Your task to perform on an android device: Empty the shopping cart on walmart.com. Add "energizer triple a" to the cart on walmart.com, then select checkout. Image 0: 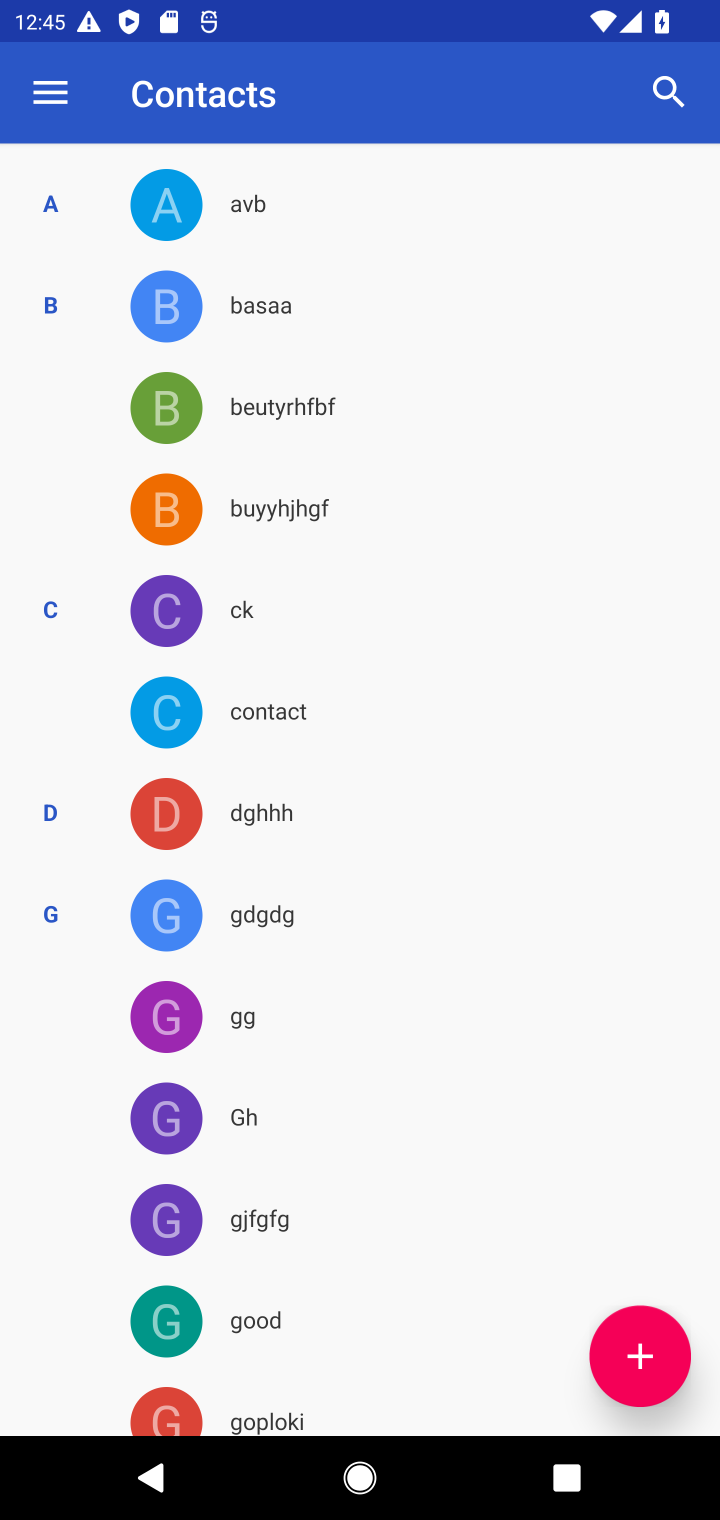
Step 0: press home button
Your task to perform on an android device: Empty the shopping cart on walmart.com. Add "energizer triple a" to the cart on walmart.com, then select checkout. Image 1: 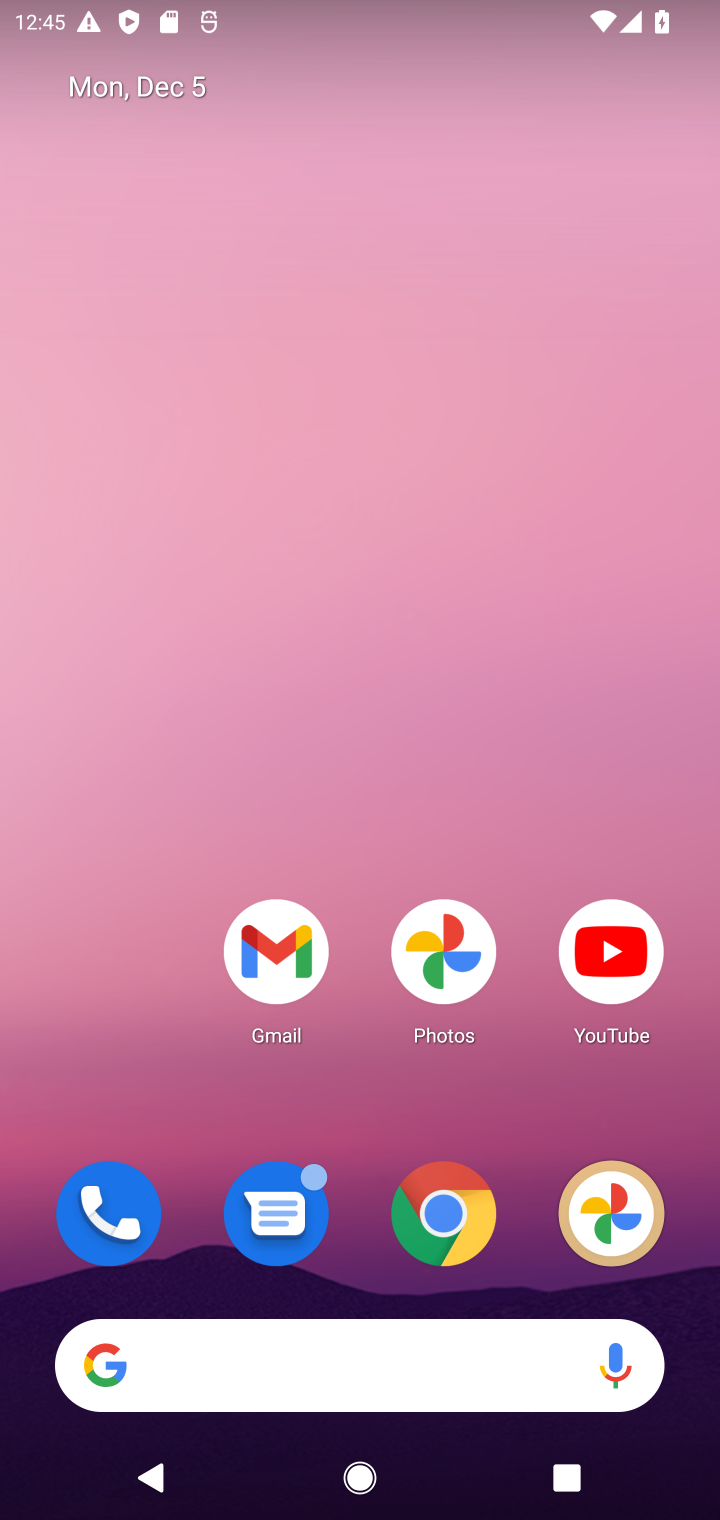
Step 1: click (441, 1222)
Your task to perform on an android device: Empty the shopping cart on walmart.com. Add "energizer triple a" to the cart on walmart.com, then select checkout. Image 2: 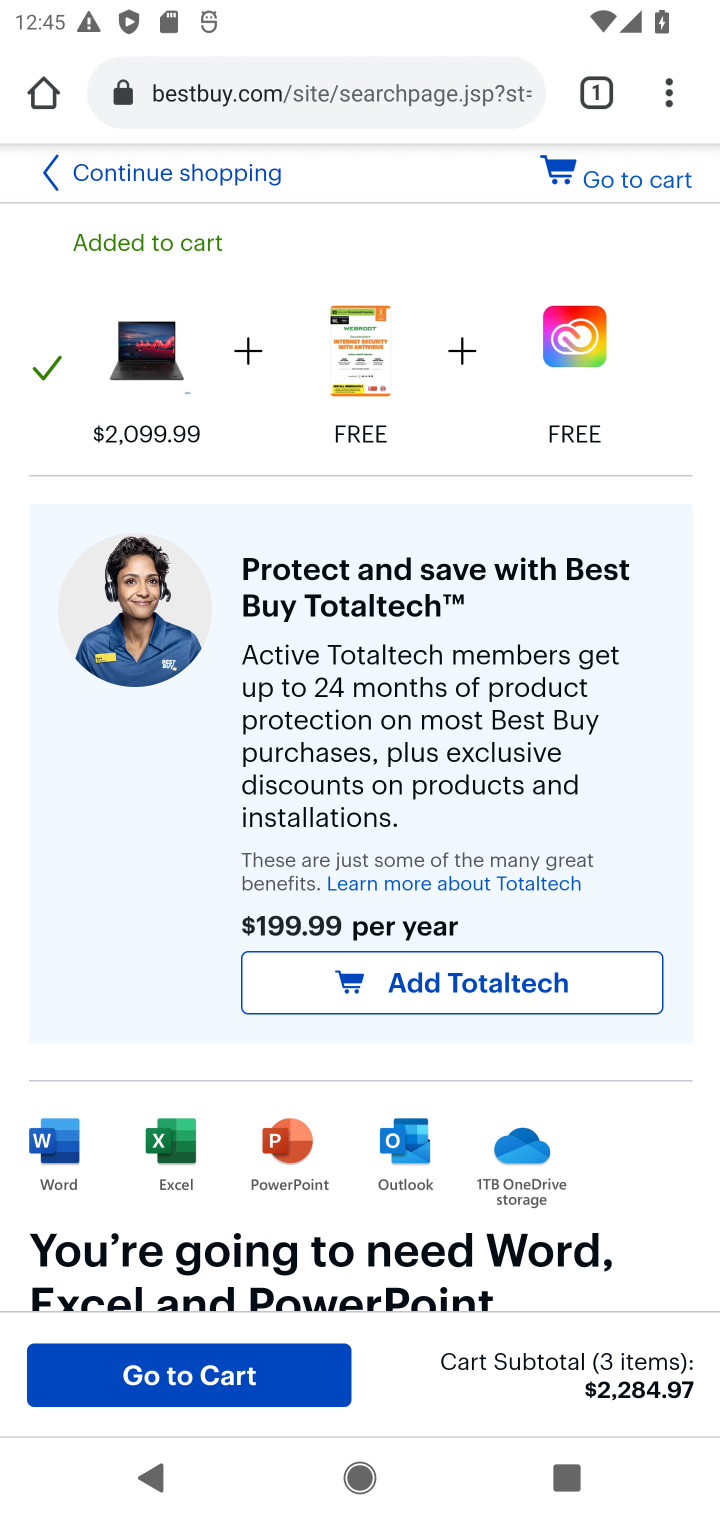
Step 2: click (269, 95)
Your task to perform on an android device: Empty the shopping cart on walmart.com. Add "energizer triple a" to the cart on walmart.com, then select checkout. Image 3: 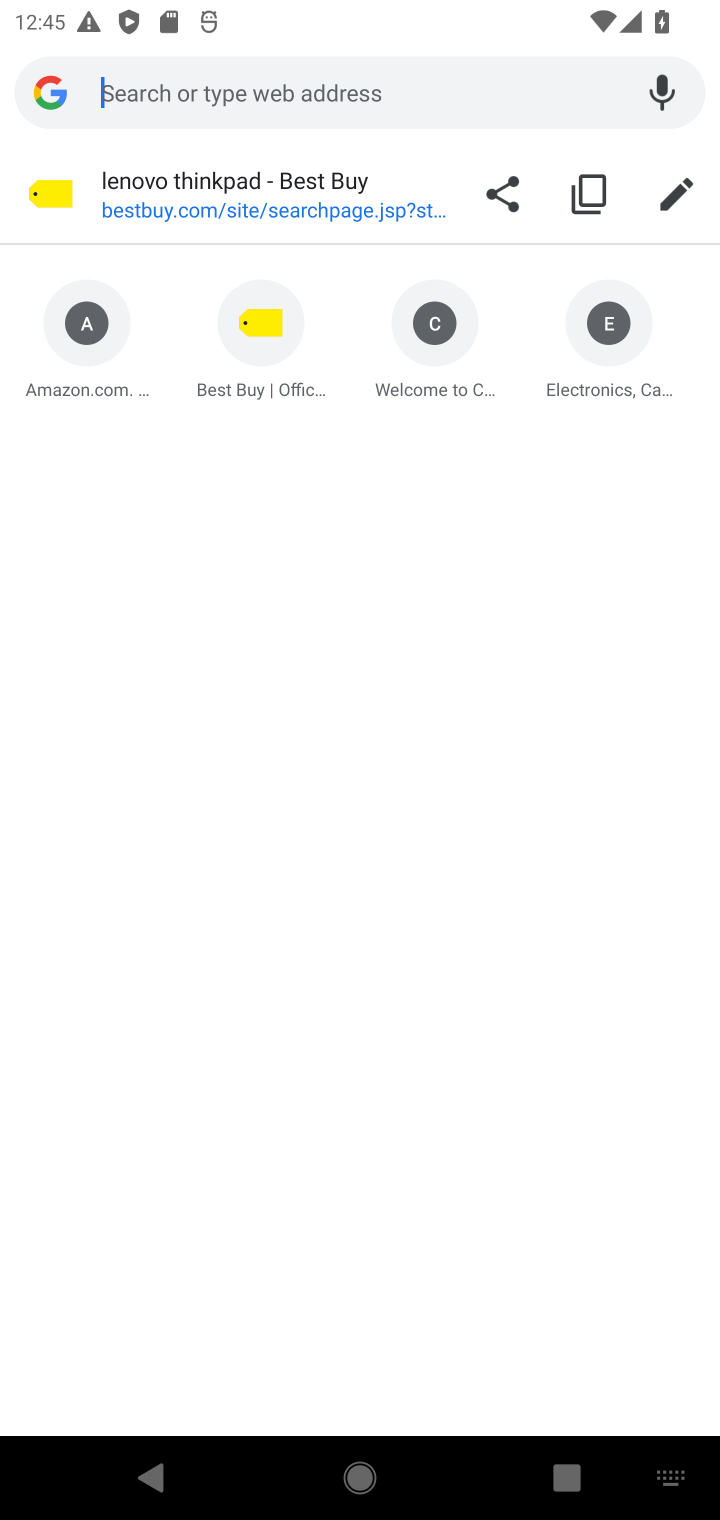
Step 3: type "walmart.com"
Your task to perform on an android device: Empty the shopping cart on walmart.com. Add "energizer triple a" to the cart on walmart.com, then select checkout. Image 4: 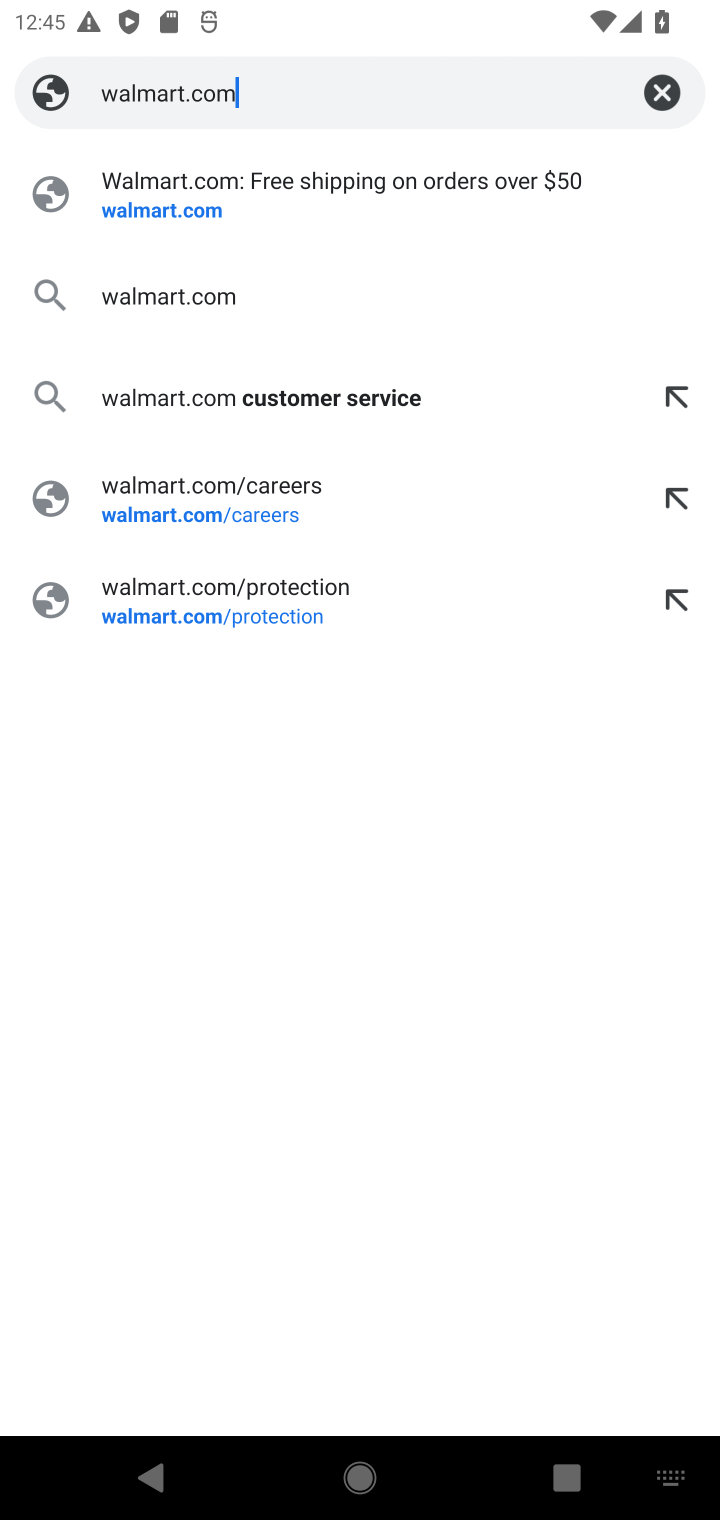
Step 4: click (147, 186)
Your task to perform on an android device: Empty the shopping cart on walmart.com. Add "energizer triple a" to the cart on walmart.com, then select checkout. Image 5: 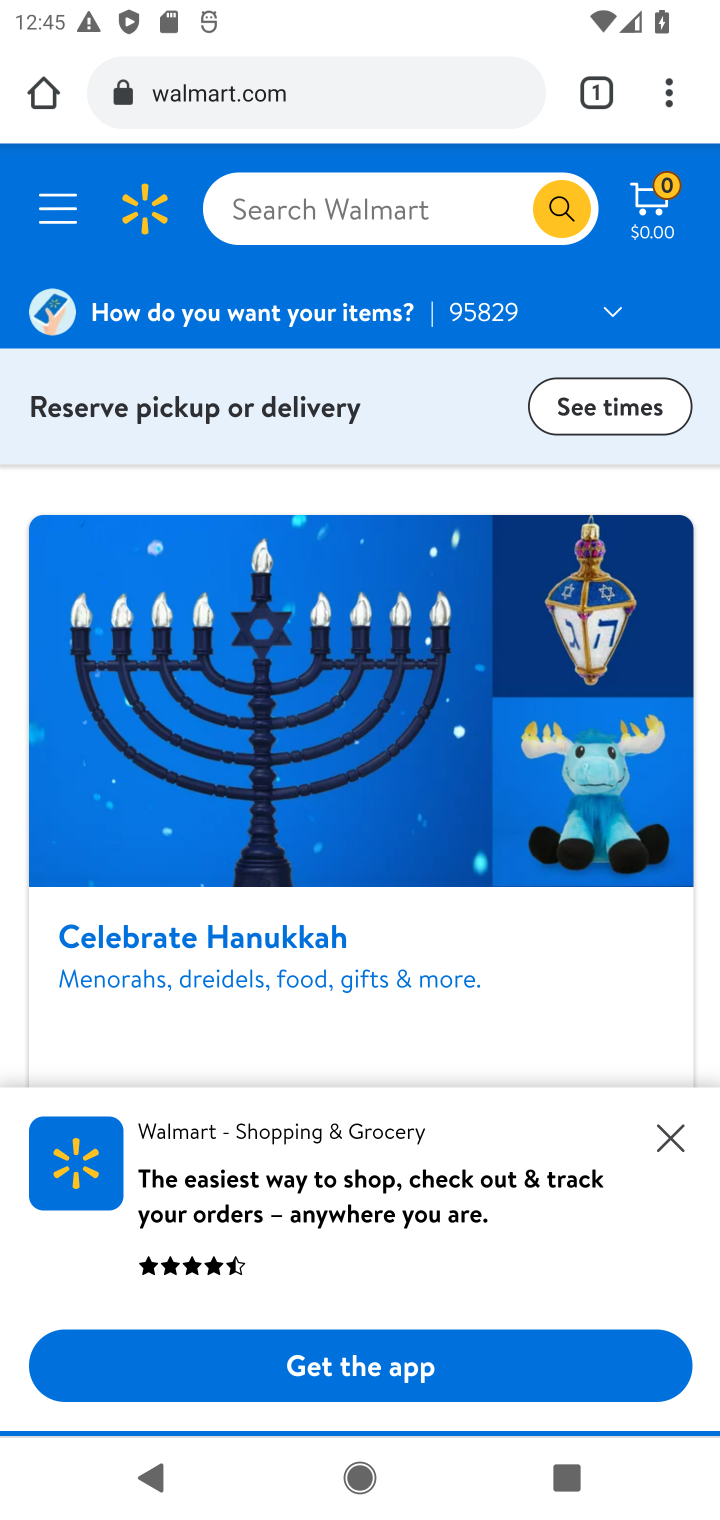
Step 5: click (648, 212)
Your task to perform on an android device: Empty the shopping cart on walmart.com. Add "energizer triple a" to the cart on walmart.com, then select checkout. Image 6: 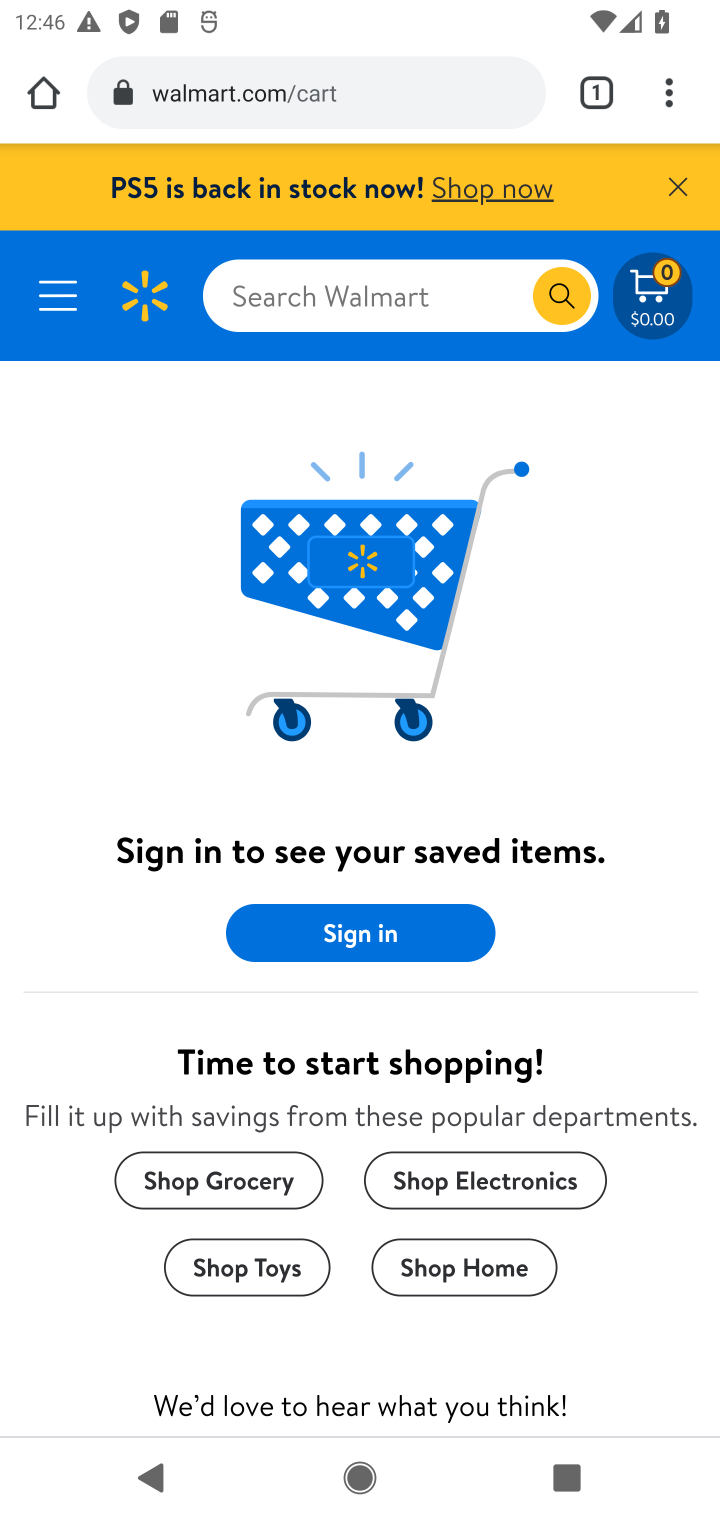
Step 6: click (304, 290)
Your task to perform on an android device: Empty the shopping cart on walmart.com. Add "energizer triple a" to the cart on walmart.com, then select checkout. Image 7: 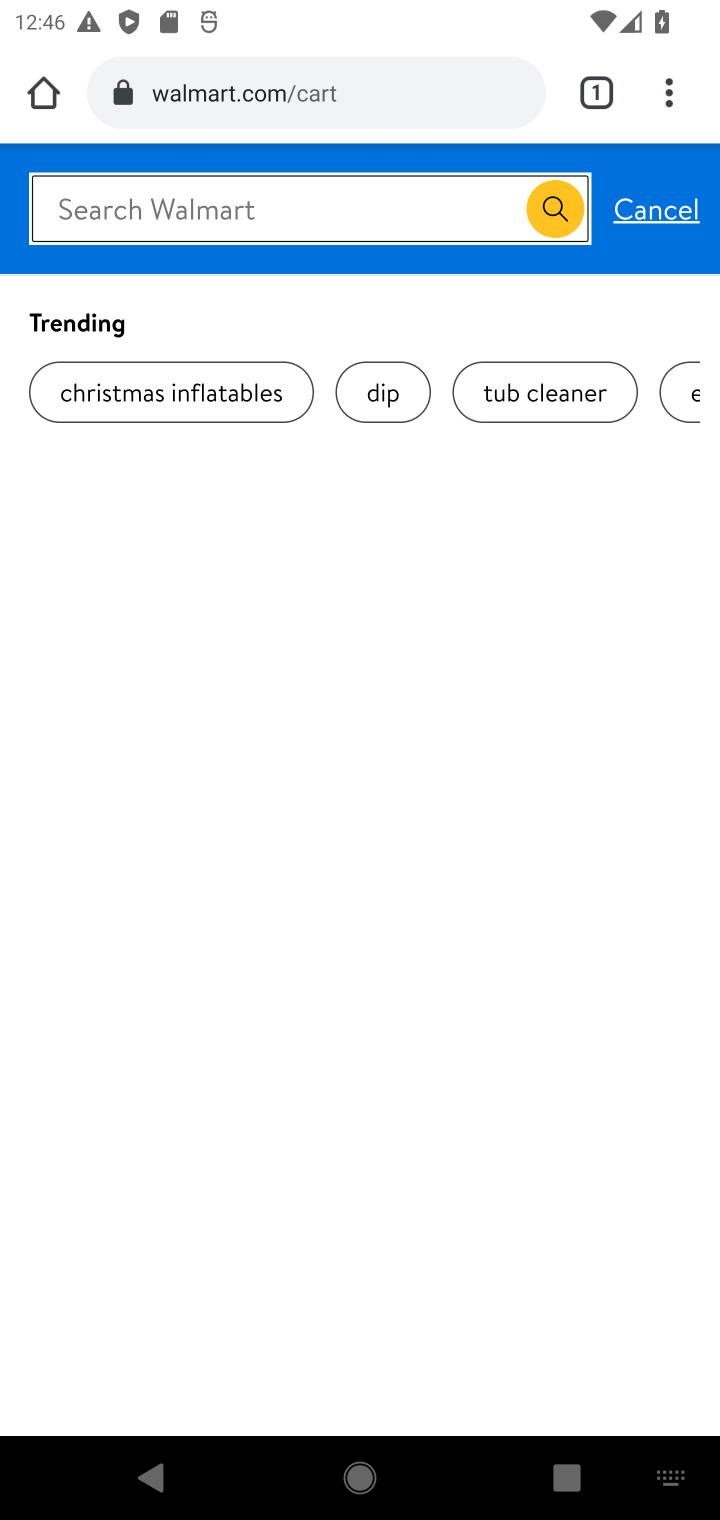
Step 7: type "energizer triple a"
Your task to perform on an android device: Empty the shopping cart on walmart.com. Add "energizer triple a" to the cart on walmart.com, then select checkout. Image 8: 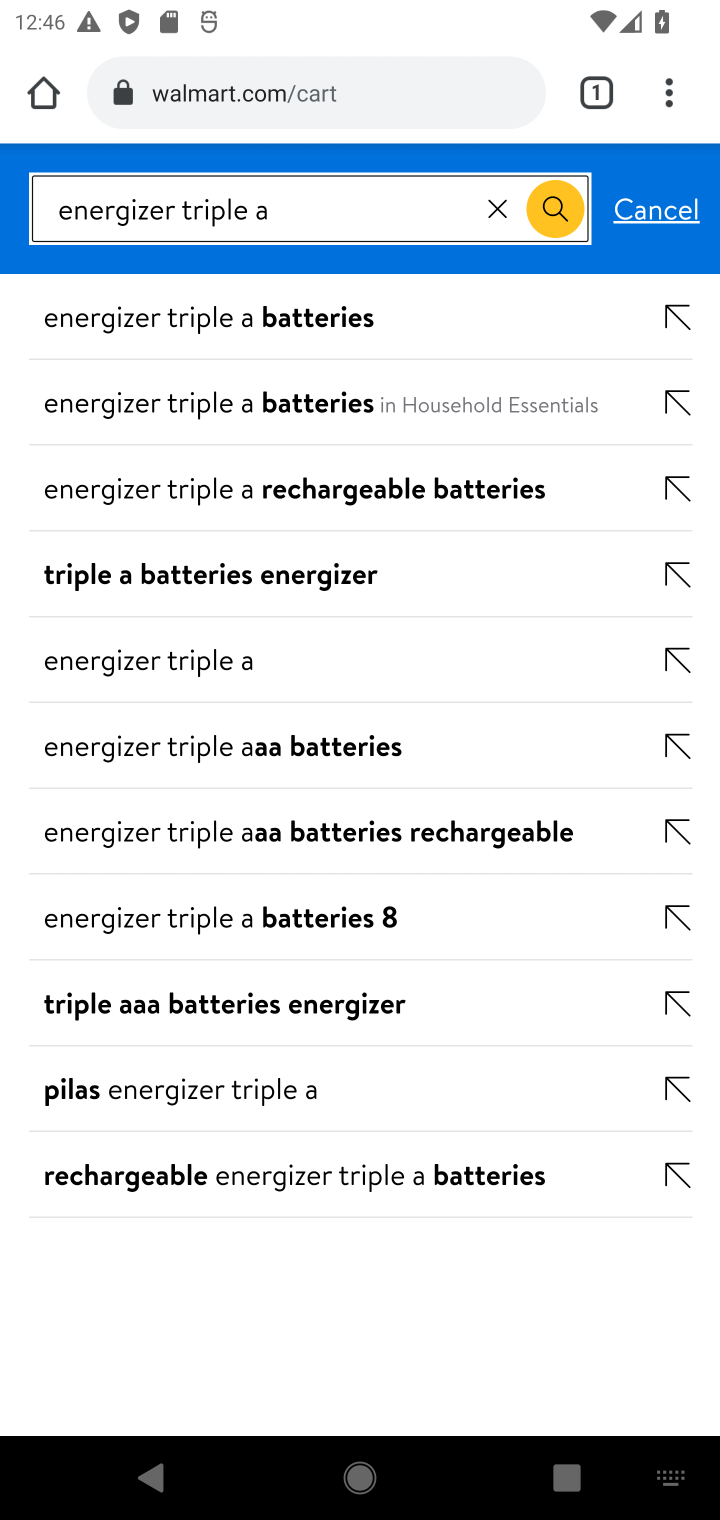
Step 8: click (203, 328)
Your task to perform on an android device: Empty the shopping cart on walmart.com. Add "energizer triple a" to the cart on walmart.com, then select checkout. Image 9: 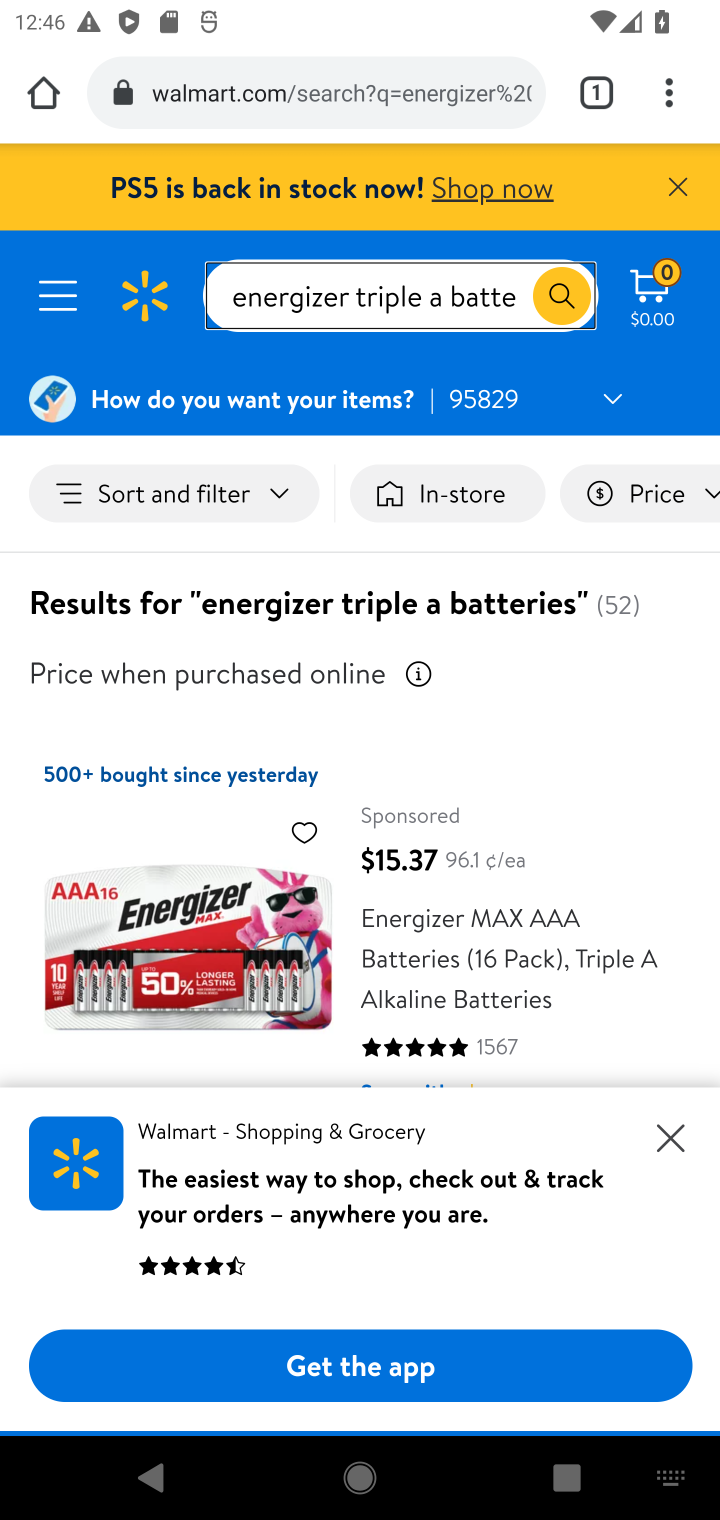
Step 9: drag from (315, 911) to (327, 445)
Your task to perform on an android device: Empty the shopping cart on walmart.com. Add "energizer triple a" to the cart on walmart.com, then select checkout. Image 10: 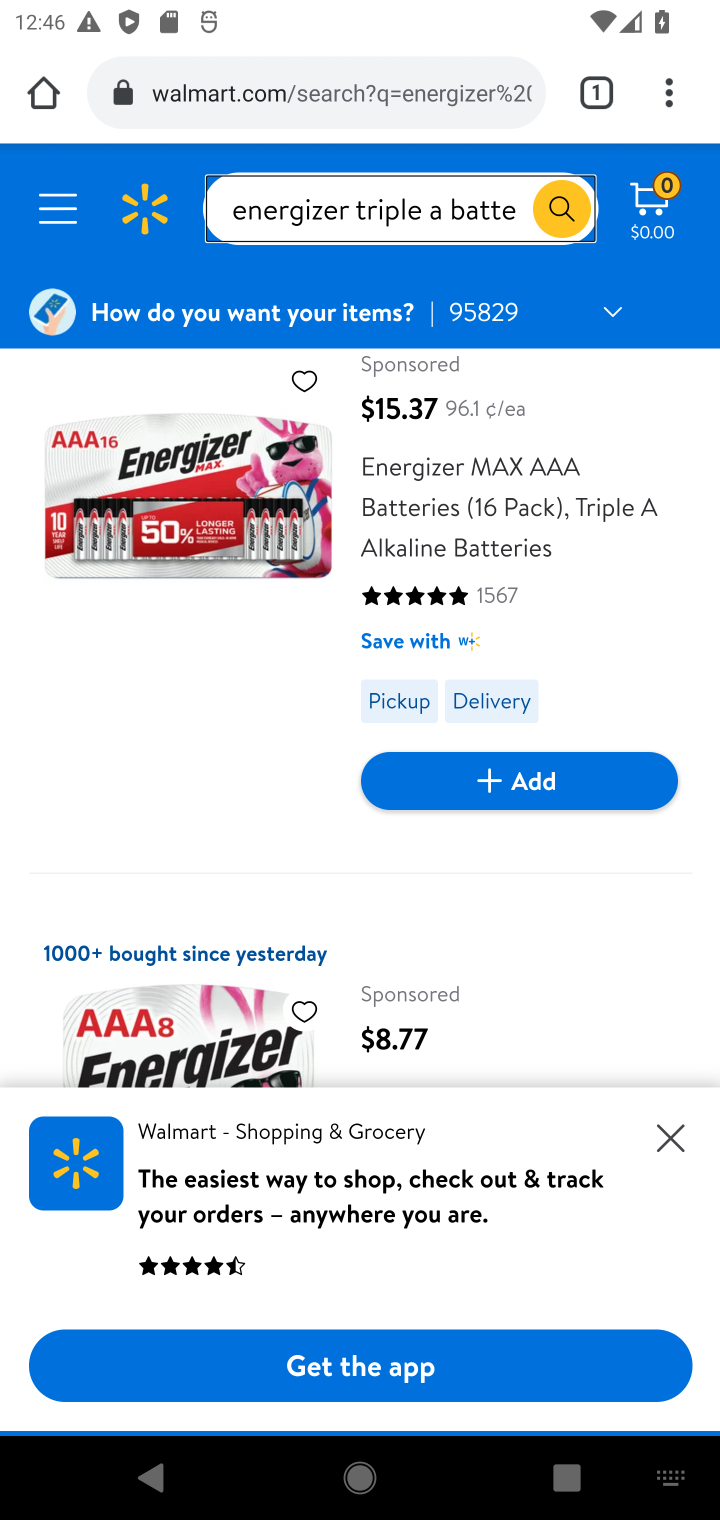
Step 10: click (478, 779)
Your task to perform on an android device: Empty the shopping cart on walmart.com. Add "energizer triple a" to the cart on walmart.com, then select checkout. Image 11: 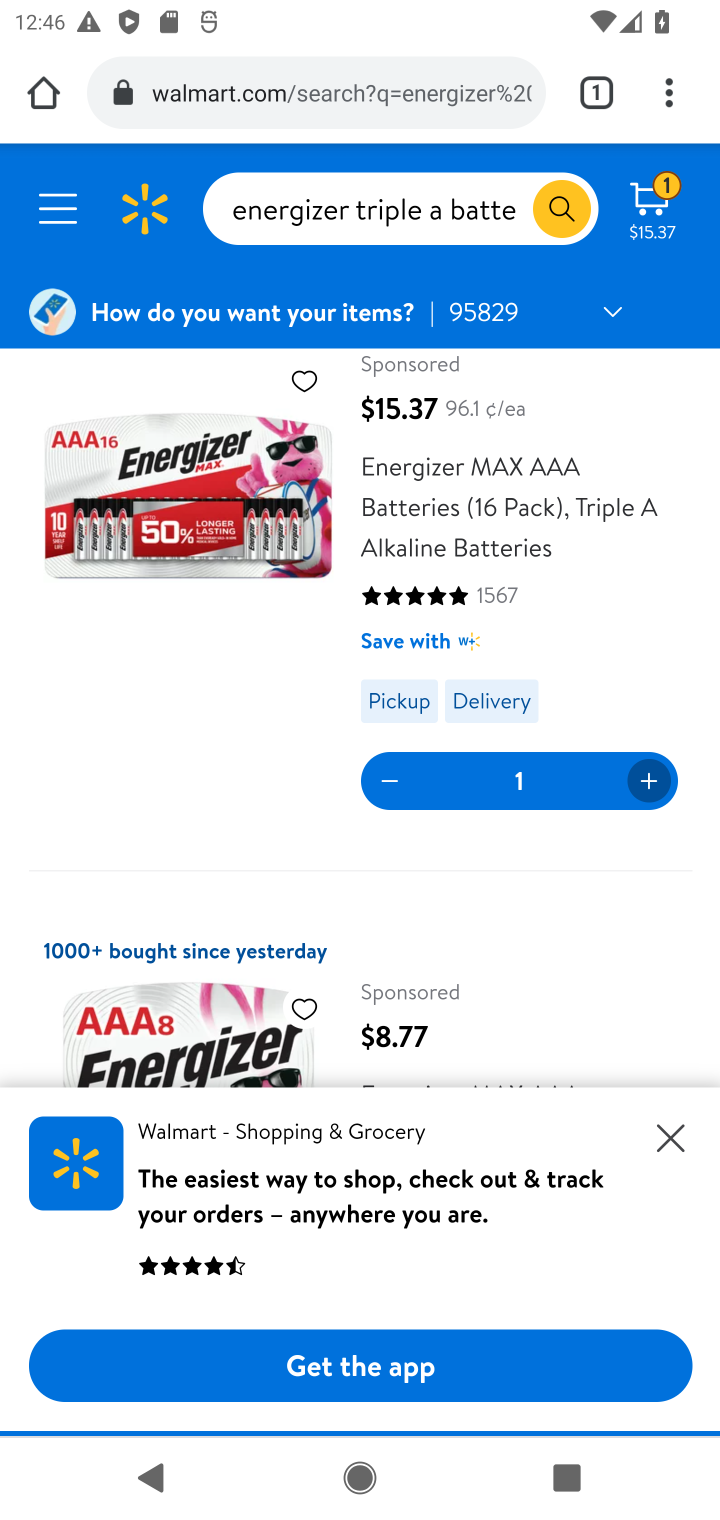
Step 11: click (661, 194)
Your task to perform on an android device: Empty the shopping cart on walmart.com. Add "energizer triple a" to the cart on walmart.com, then select checkout. Image 12: 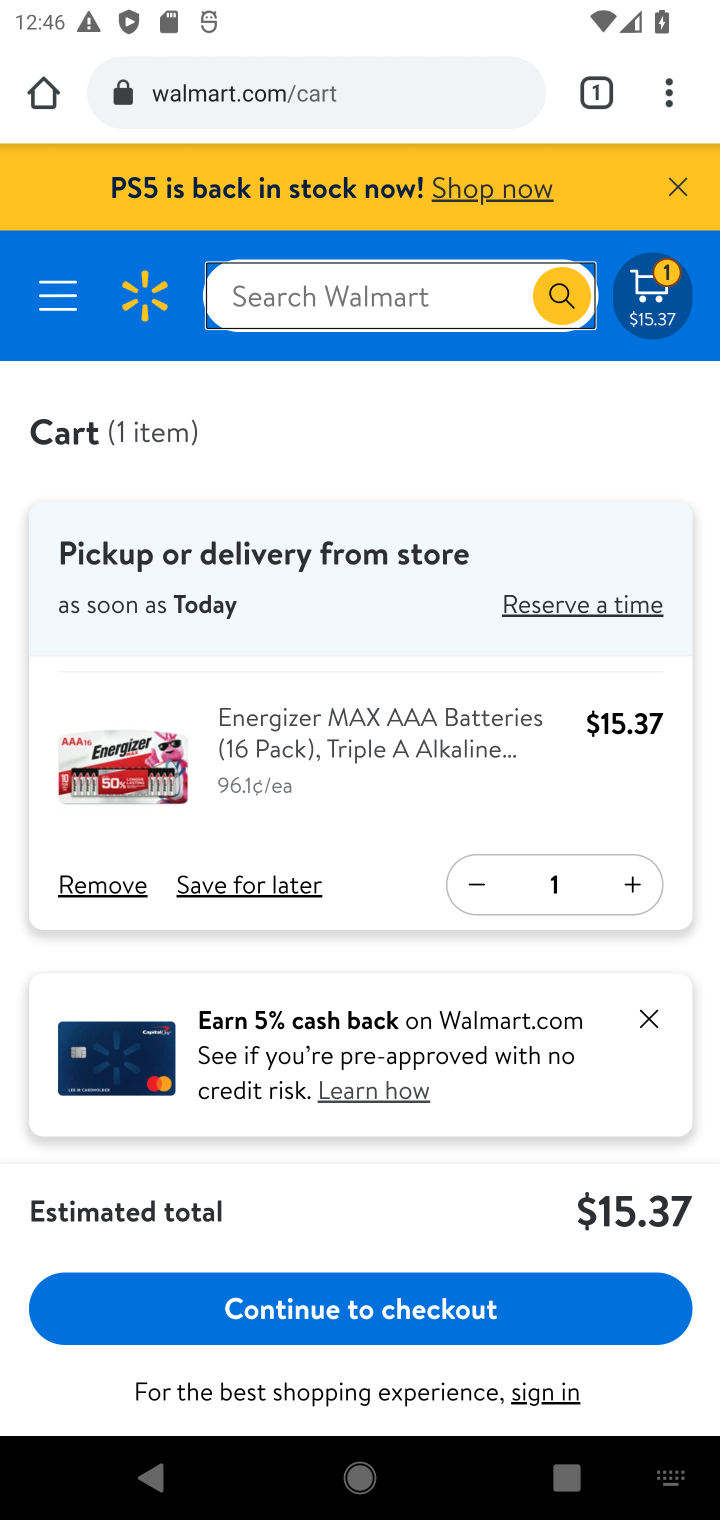
Step 12: click (312, 1302)
Your task to perform on an android device: Empty the shopping cart on walmart.com. Add "energizer triple a" to the cart on walmart.com, then select checkout. Image 13: 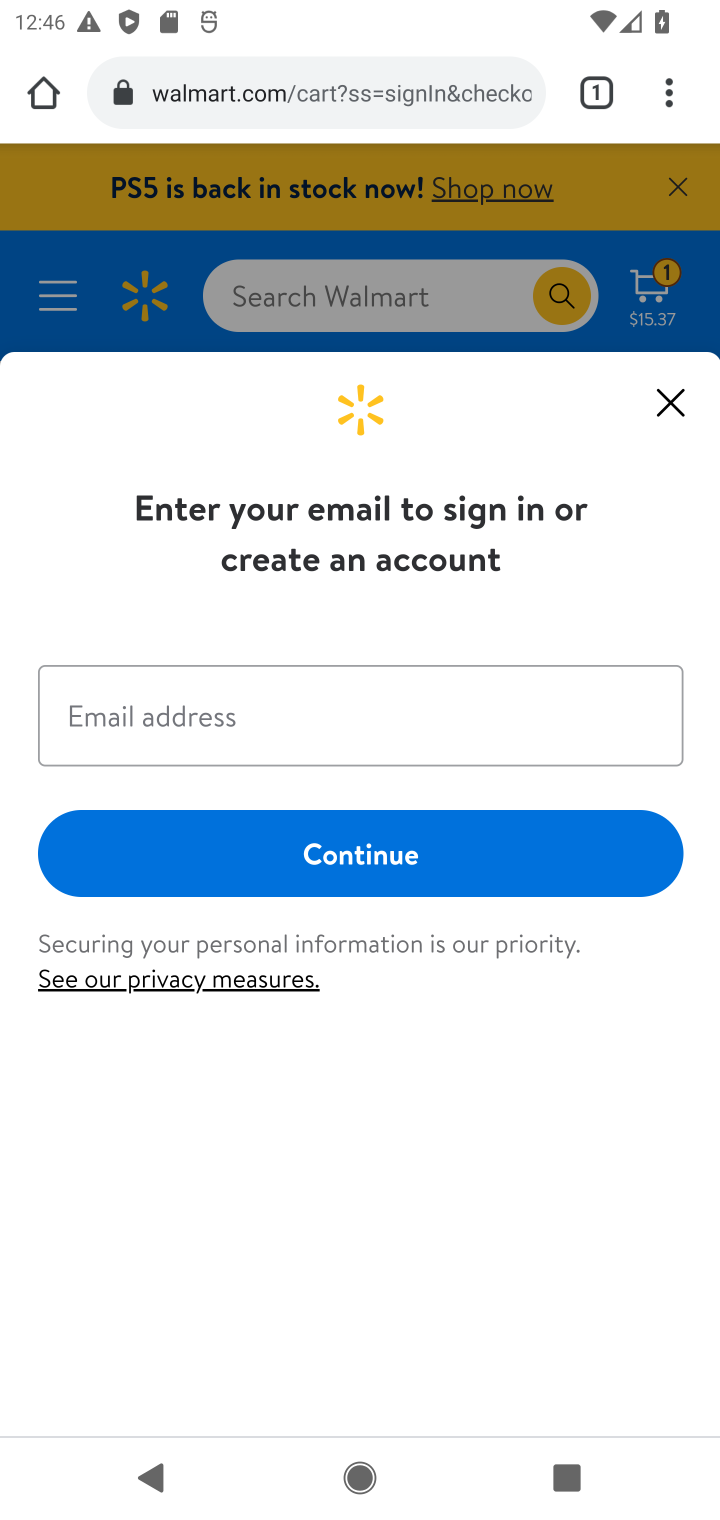
Step 13: task complete